Your task to perform on an android device: Show me popular videos on Youtube Image 0: 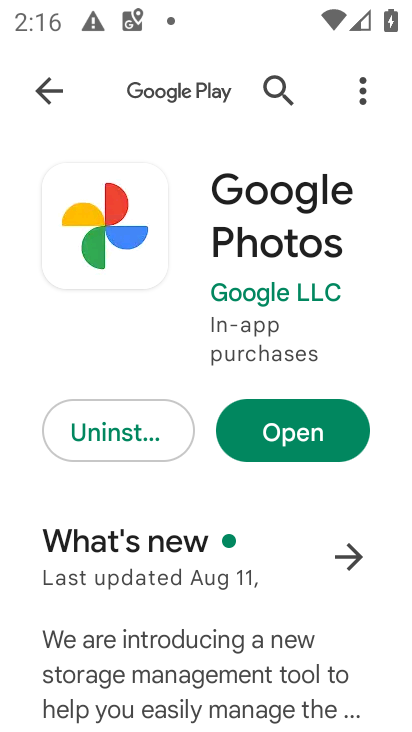
Step 0: press home button
Your task to perform on an android device: Show me popular videos on Youtube Image 1: 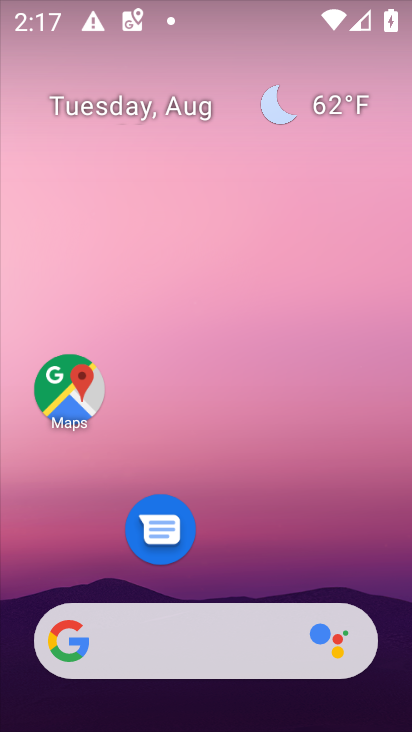
Step 1: click (299, 160)
Your task to perform on an android device: Show me popular videos on Youtube Image 2: 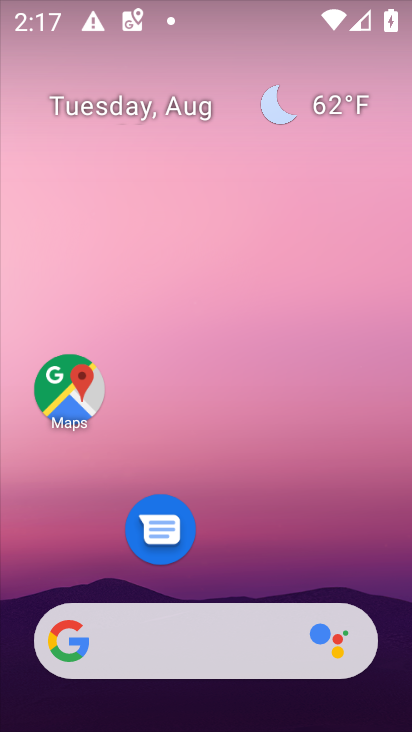
Step 2: click (365, 138)
Your task to perform on an android device: Show me popular videos on Youtube Image 3: 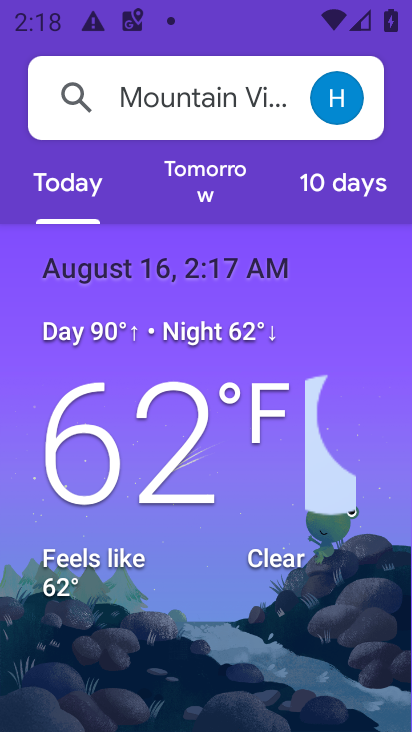
Step 3: task complete